Your task to perform on an android device: Open Google Maps Image 0: 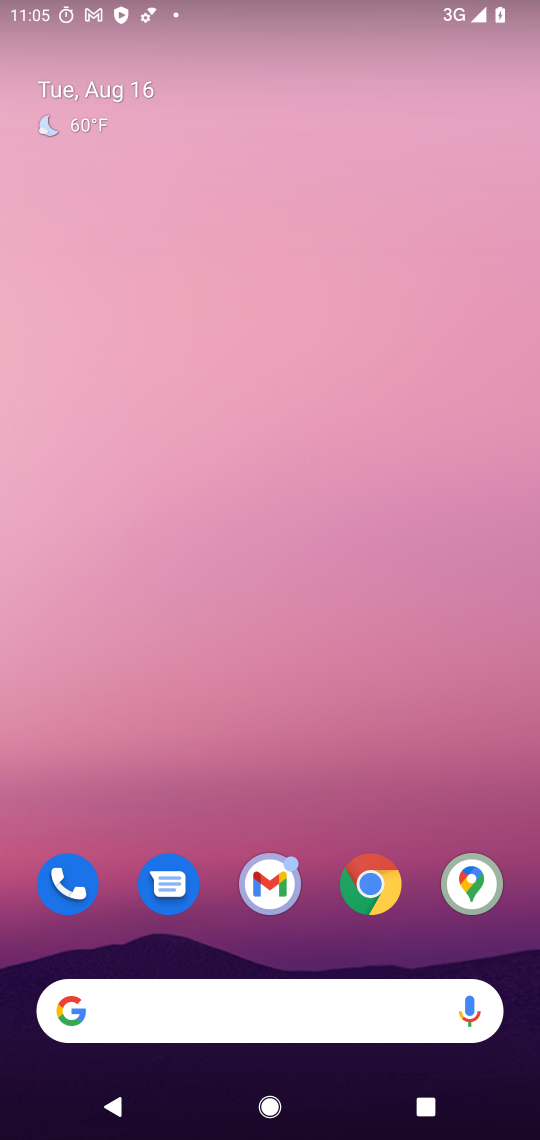
Step 0: click (467, 889)
Your task to perform on an android device: Open Google Maps Image 1: 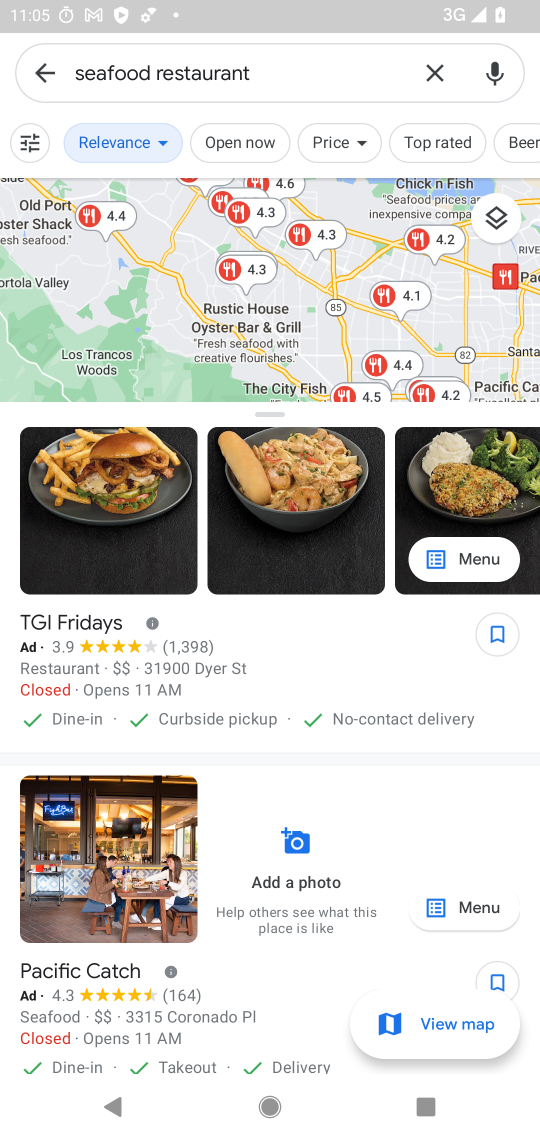
Step 1: task complete